Your task to perform on an android device: read, delete, or share a saved page in the chrome app Image 0: 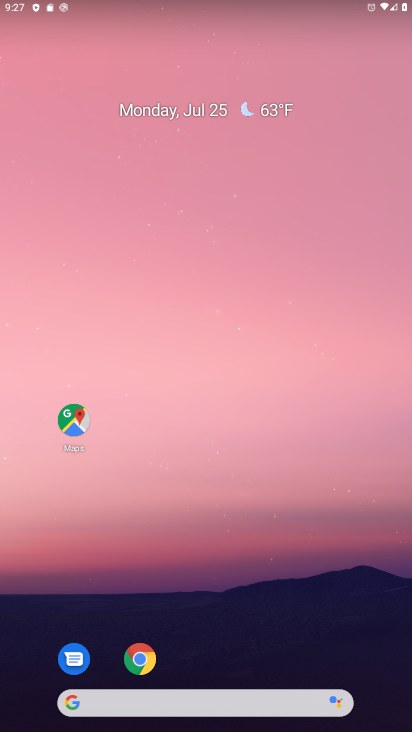
Step 0: drag from (206, 723) to (248, 304)
Your task to perform on an android device: read, delete, or share a saved page in the chrome app Image 1: 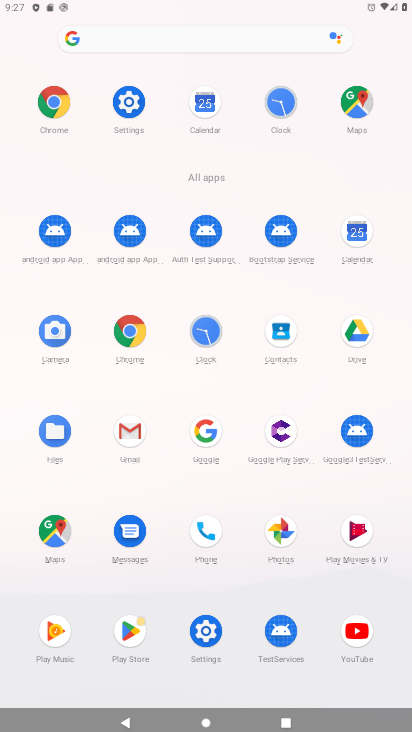
Step 1: click (130, 335)
Your task to perform on an android device: read, delete, or share a saved page in the chrome app Image 2: 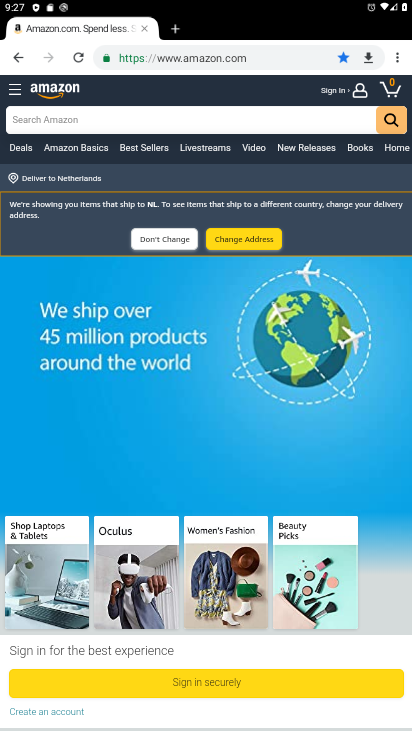
Step 2: click (397, 59)
Your task to perform on an android device: read, delete, or share a saved page in the chrome app Image 3: 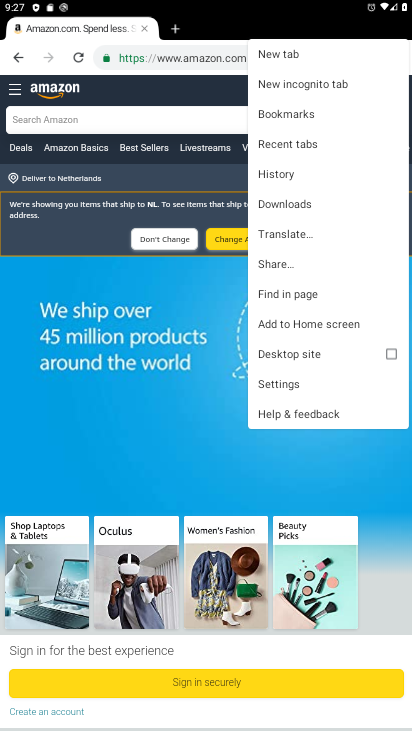
Step 3: click (287, 206)
Your task to perform on an android device: read, delete, or share a saved page in the chrome app Image 4: 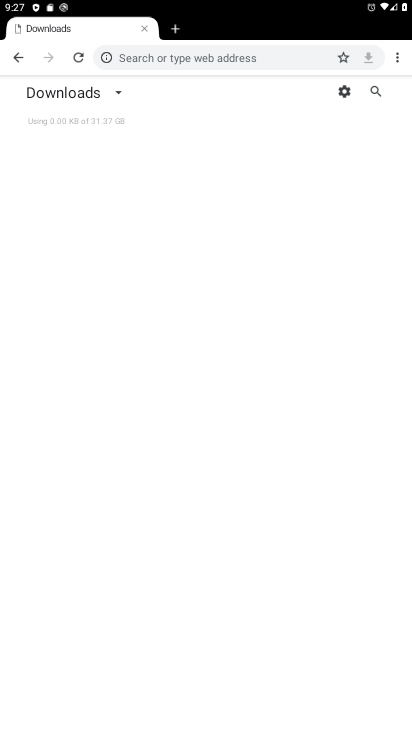
Step 4: click (116, 89)
Your task to perform on an android device: read, delete, or share a saved page in the chrome app Image 5: 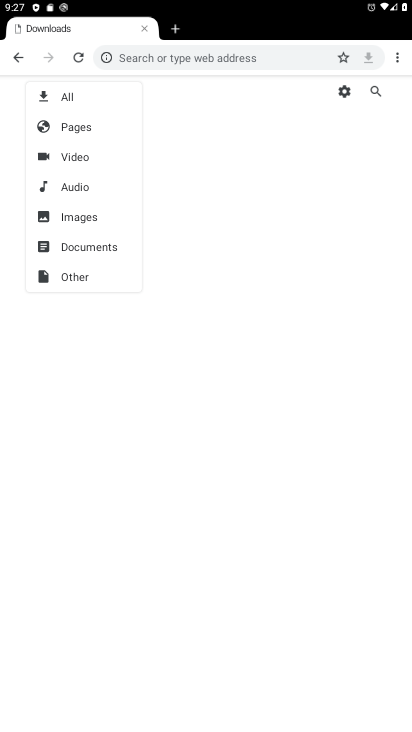
Step 5: click (71, 129)
Your task to perform on an android device: read, delete, or share a saved page in the chrome app Image 6: 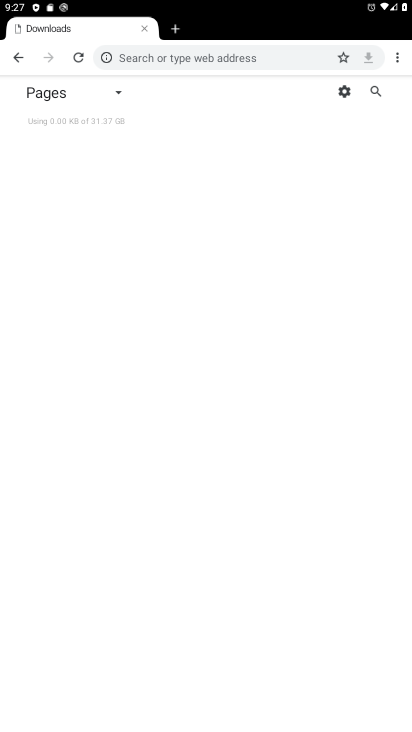
Step 6: task complete